Your task to perform on an android device: Is it going to rain this weekend? Image 0: 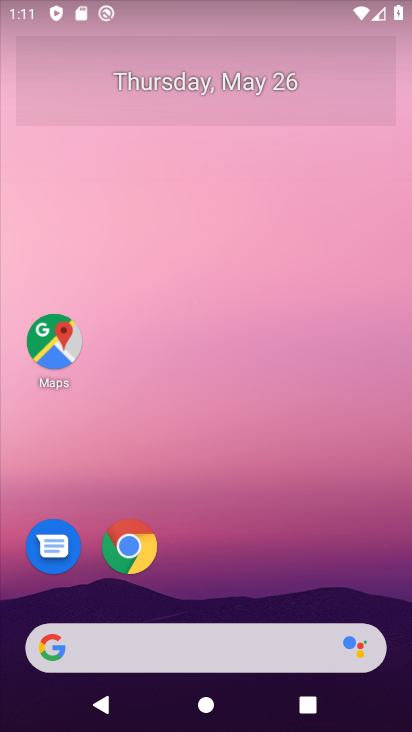
Step 0: drag from (239, 541) to (261, 186)
Your task to perform on an android device: Is it going to rain this weekend? Image 1: 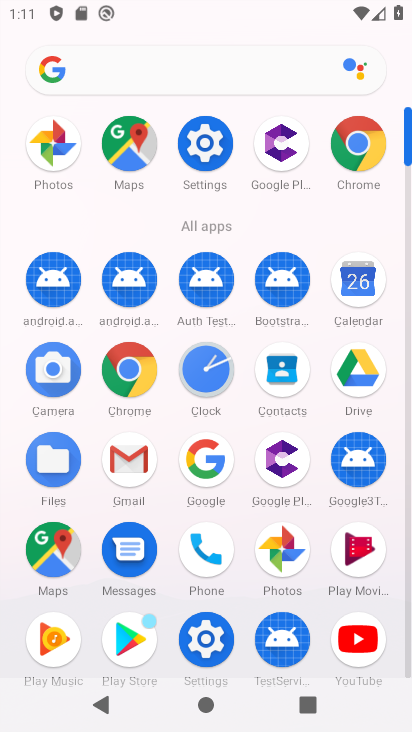
Step 1: click (200, 468)
Your task to perform on an android device: Is it going to rain this weekend? Image 2: 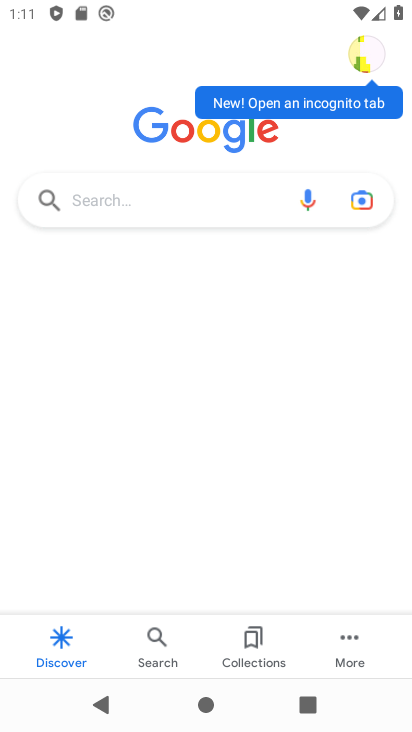
Step 2: click (200, 202)
Your task to perform on an android device: Is it going to rain this weekend? Image 3: 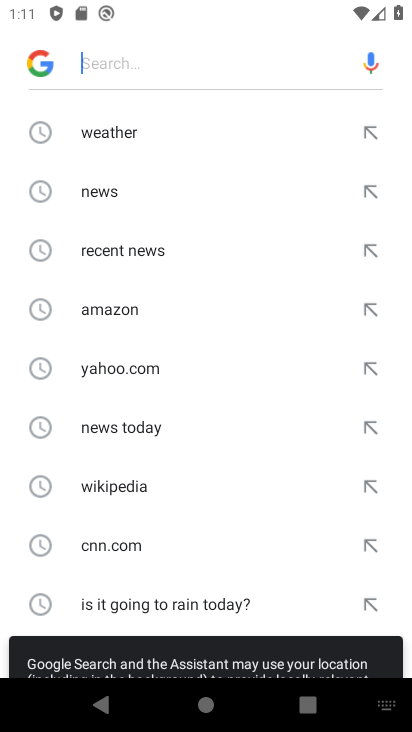
Step 3: drag from (153, 530) to (207, 246)
Your task to perform on an android device: Is it going to rain this weekend? Image 4: 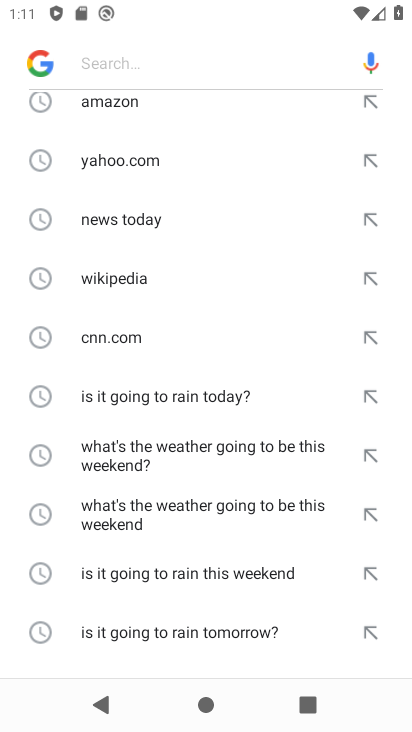
Step 4: click (106, 579)
Your task to perform on an android device: Is it going to rain this weekend? Image 5: 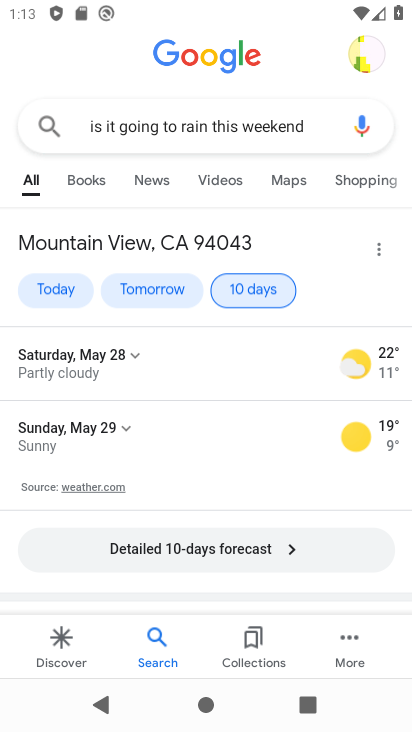
Step 5: task complete